Your task to perform on an android device: empty trash in google photos Image 0: 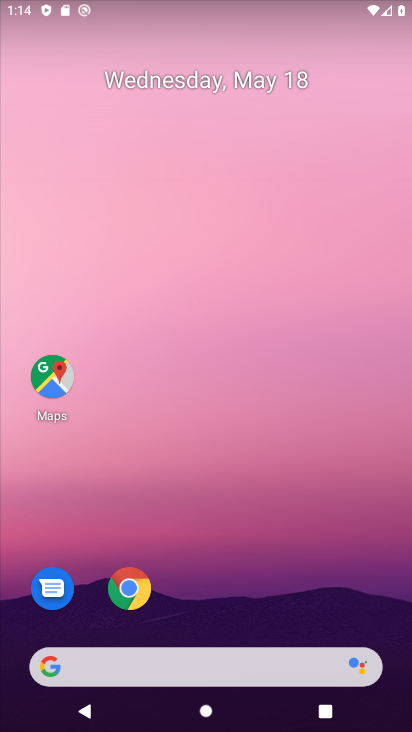
Step 0: drag from (334, 611) to (326, 132)
Your task to perform on an android device: empty trash in google photos Image 1: 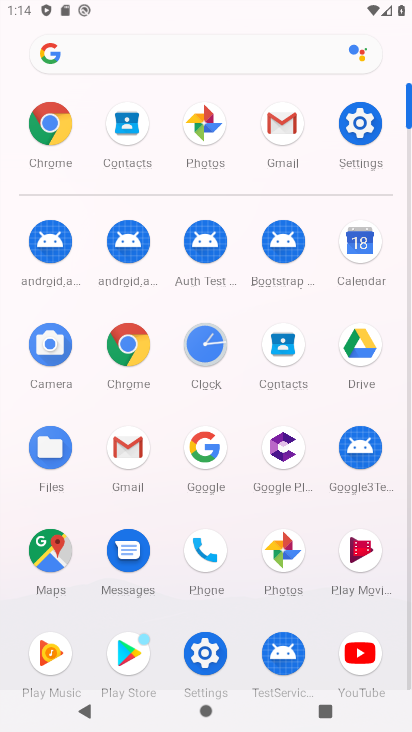
Step 1: click (275, 556)
Your task to perform on an android device: empty trash in google photos Image 2: 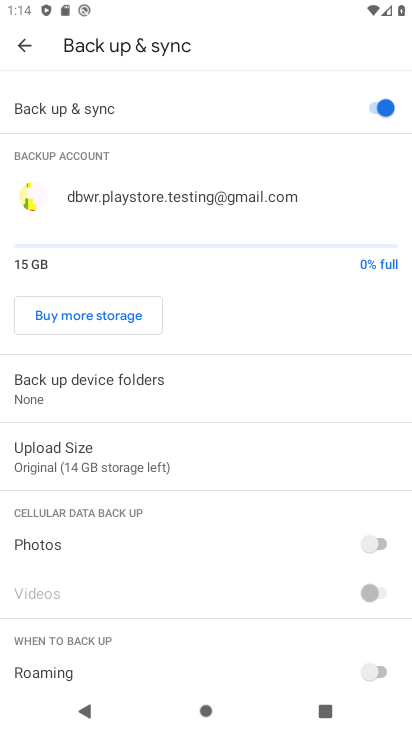
Step 2: click (13, 47)
Your task to perform on an android device: empty trash in google photos Image 3: 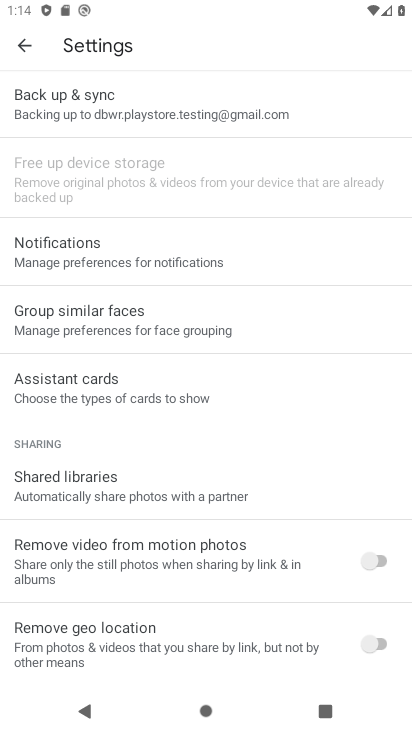
Step 3: drag from (326, 588) to (353, 303)
Your task to perform on an android device: empty trash in google photos Image 4: 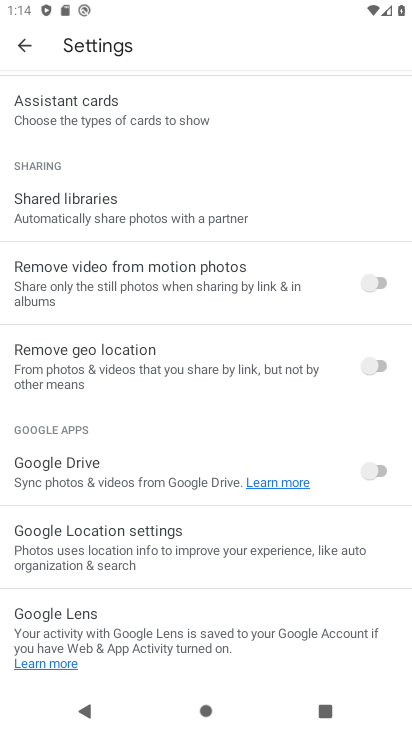
Step 4: drag from (300, 584) to (322, 280)
Your task to perform on an android device: empty trash in google photos Image 5: 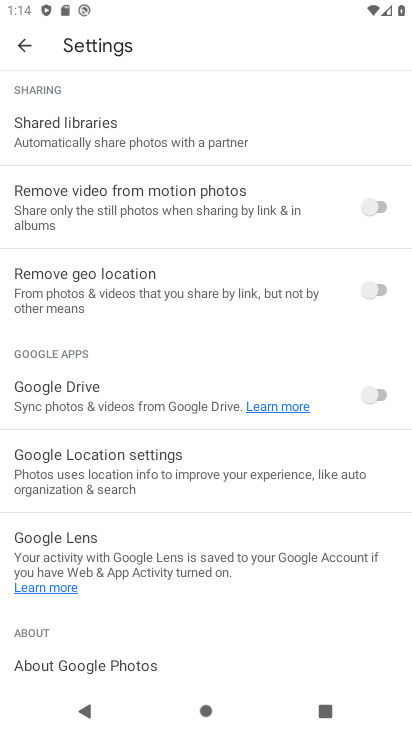
Step 5: drag from (306, 618) to (310, 312)
Your task to perform on an android device: empty trash in google photos Image 6: 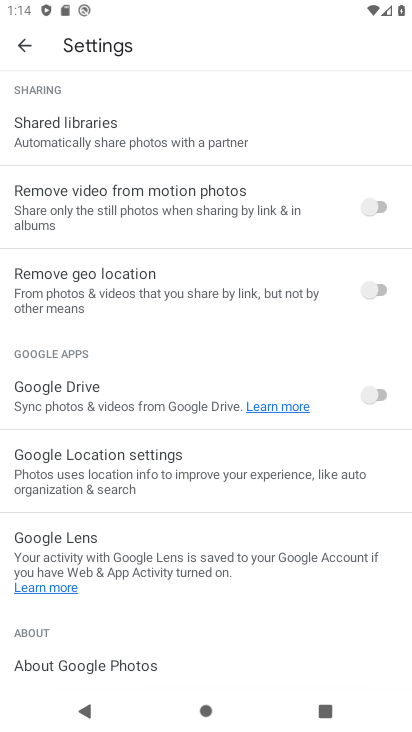
Step 6: drag from (310, 158) to (275, 445)
Your task to perform on an android device: empty trash in google photos Image 7: 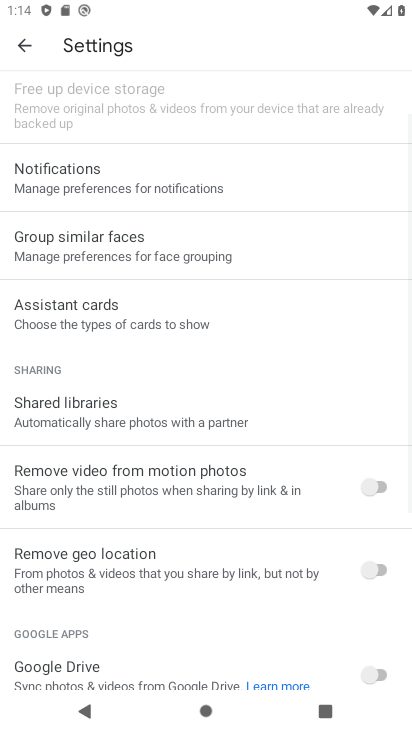
Step 7: drag from (312, 196) to (293, 395)
Your task to perform on an android device: empty trash in google photos Image 8: 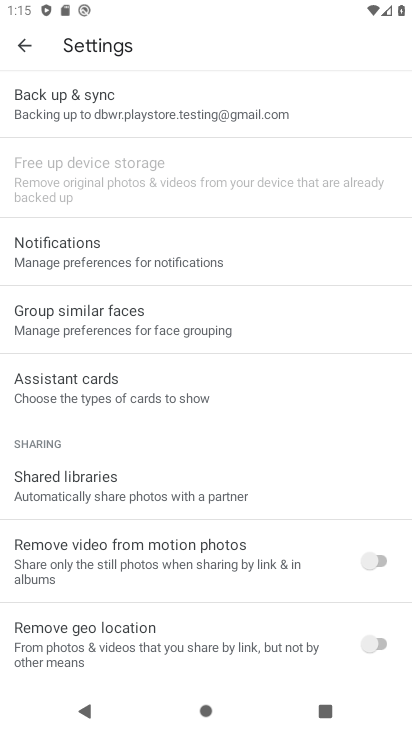
Step 8: drag from (310, 129) to (305, 382)
Your task to perform on an android device: empty trash in google photos Image 9: 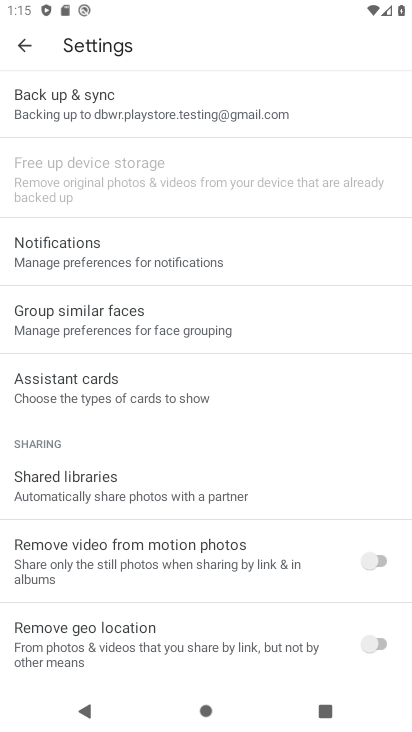
Step 9: click (27, 39)
Your task to perform on an android device: empty trash in google photos Image 10: 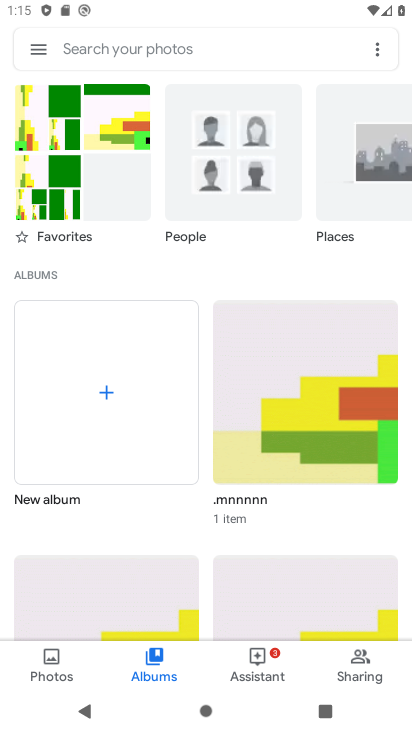
Step 10: click (29, 44)
Your task to perform on an android device: empty trash in google photos Image 11: 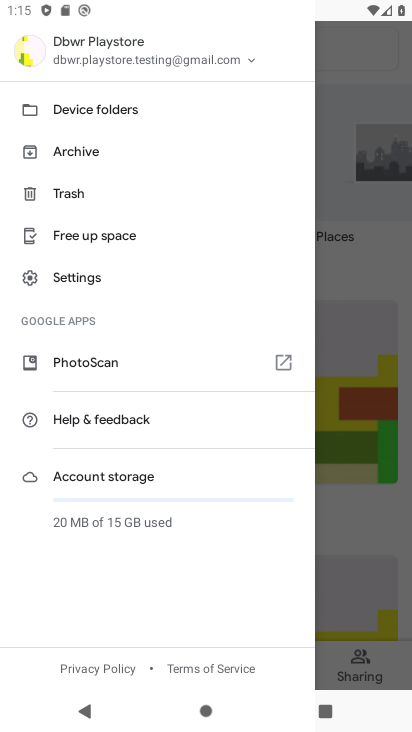
Step 11: drag from (204, 261) to (200, 439)
Your task to perform on an android device: empty trash in google photos Image 12: 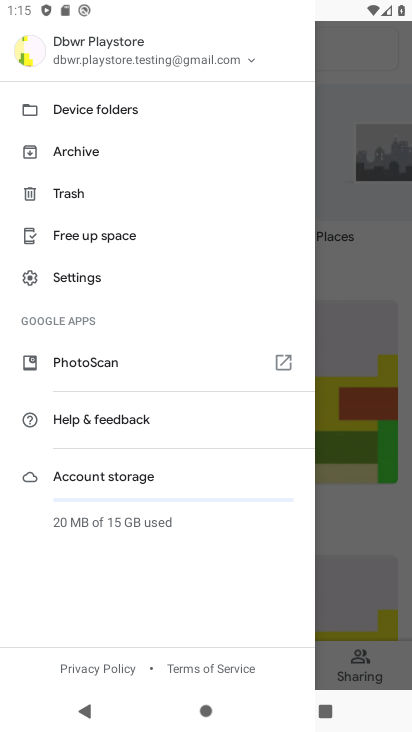
Step 12: click (76, 181)
Your task to perform on an android device: empty trash in google photos Image 13: 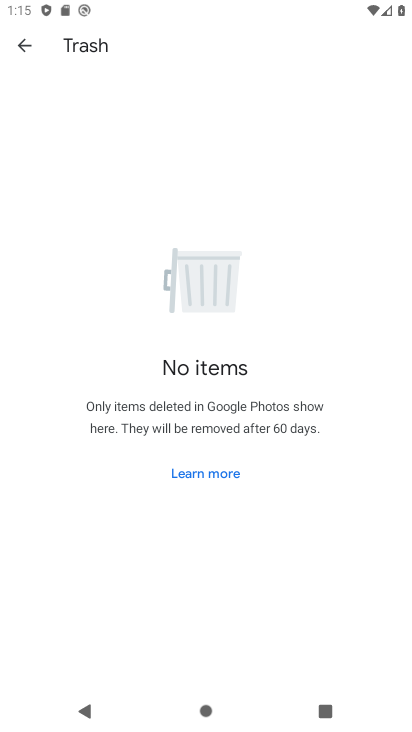
Step 13: task complete